Your task to perform on an android device: snooze an email in the gmail app Image 0: 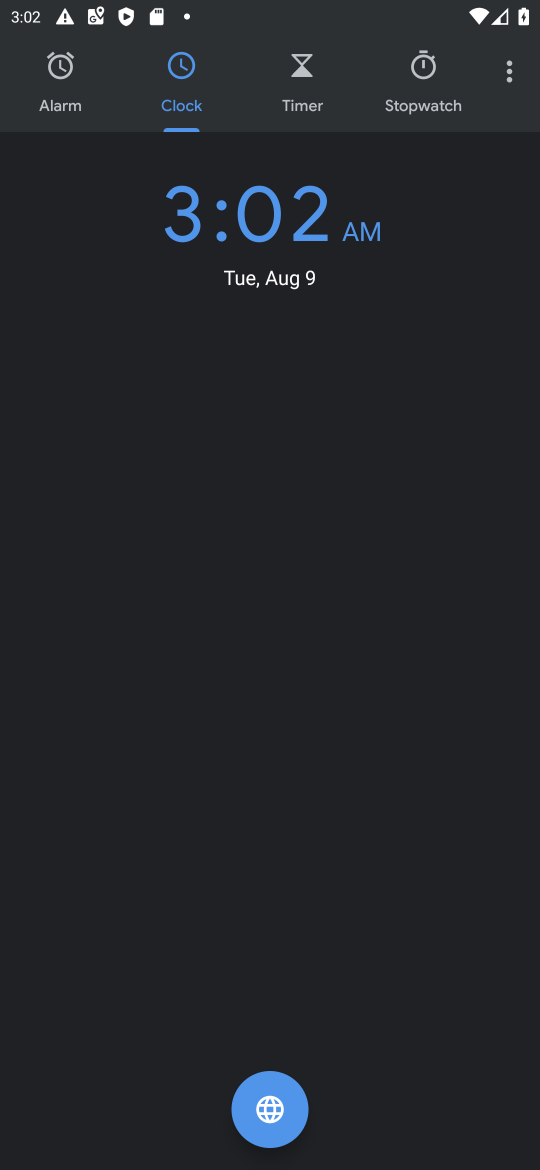
Step 0: press home button
Your task to perform on an android device: snooze an email in the gmail app Image 1: 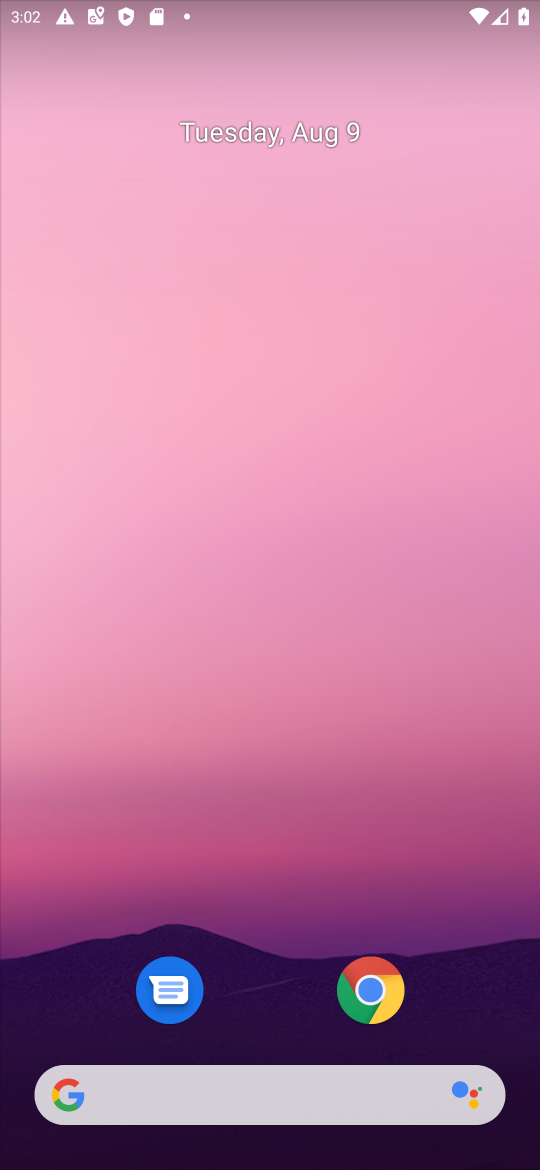
Step 1: drag from (274, 1080) to (93, 121)
Your task to perform on an android device: snooze an email in the gmail app Image 2: 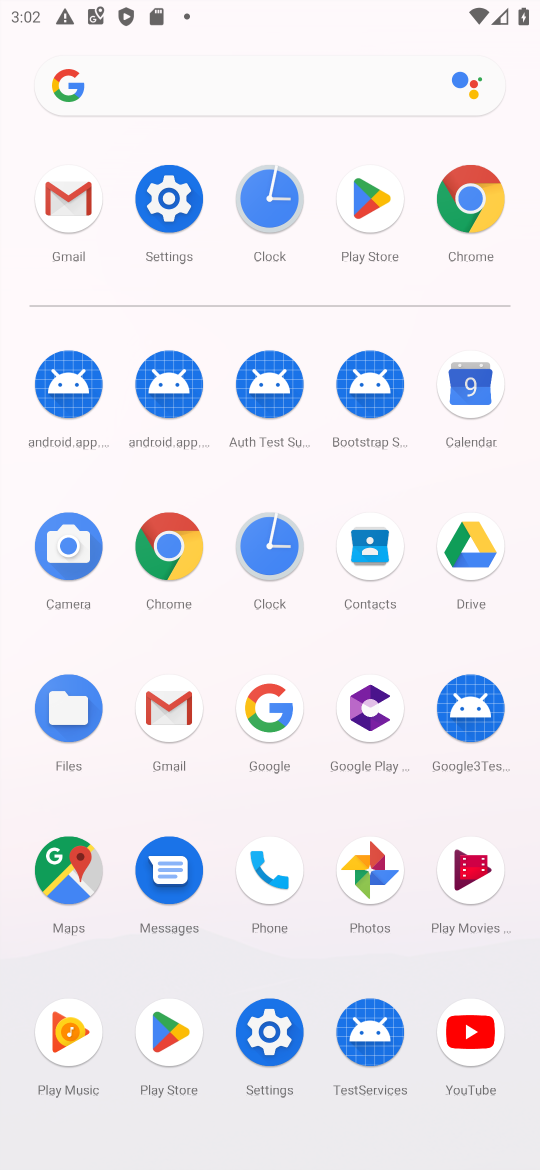
Step 2: click (138, 716)
Your task to perform on an android device: snooze an email in the gmail app Image 3: 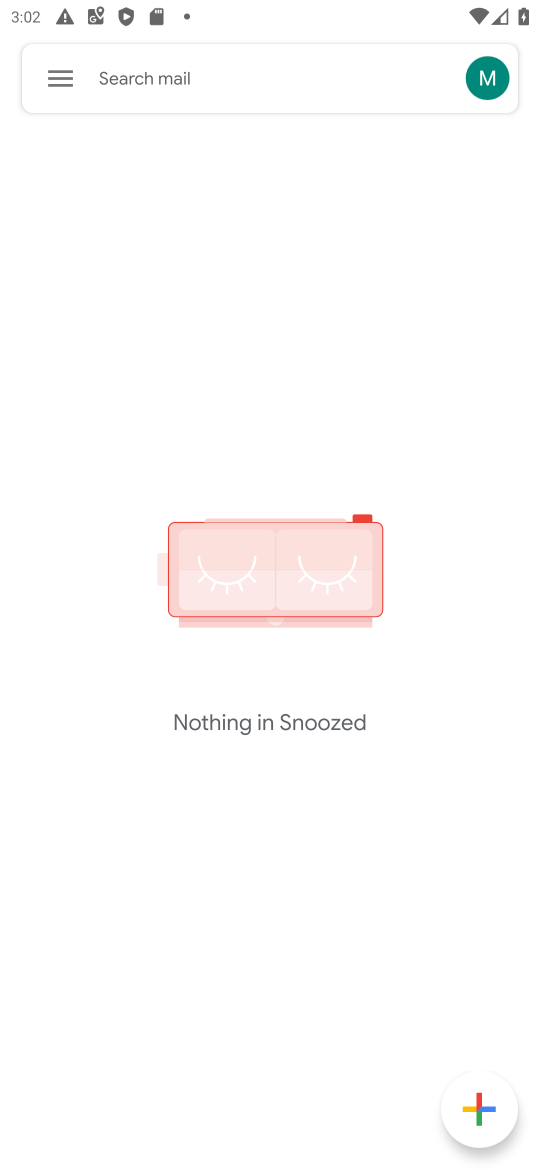
Step 3: click (48, 76)
Your task to perform on an android device: snooze an email in the gmail app Image 4: 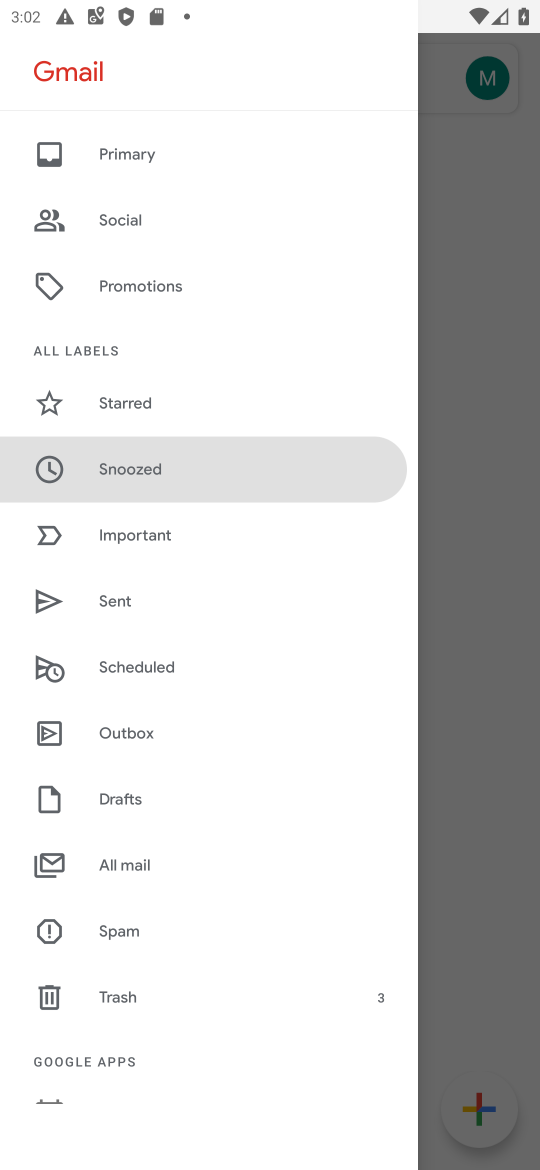
Step 4: click (130, 492)
Your task to perform on an android device: snooze an email in the gmail app Image 5: 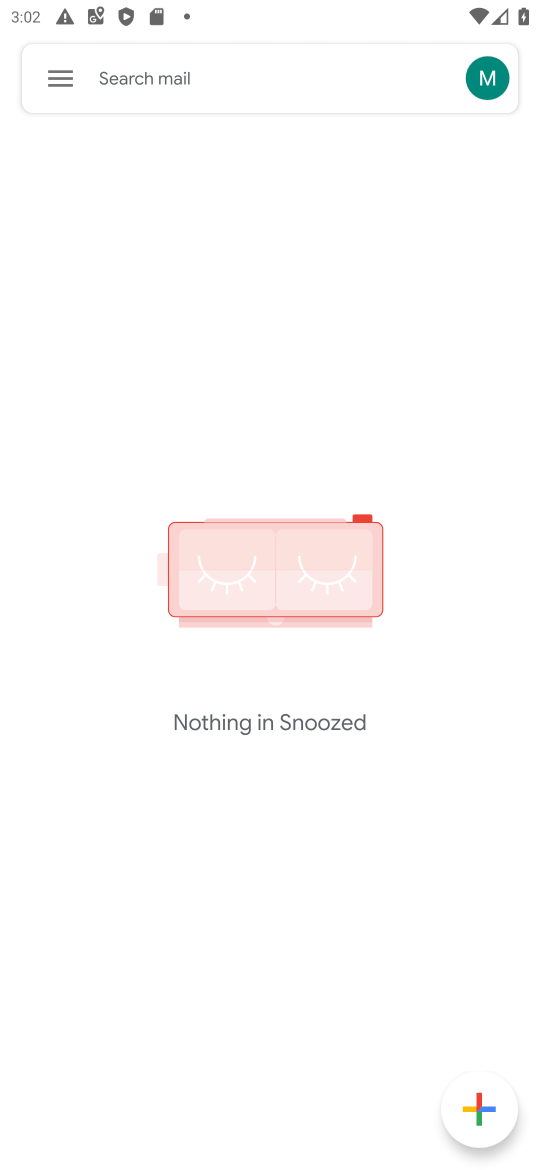
Step 5: task complete